Your task to perform on an android device: Open settings Image 0: 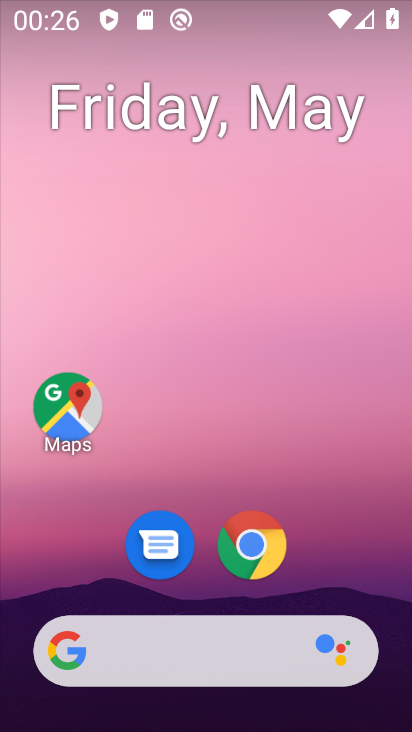
Step 0: drag from (303, 165) to (278, 12)
Your task to perform on an android device: Open settings Image 1: 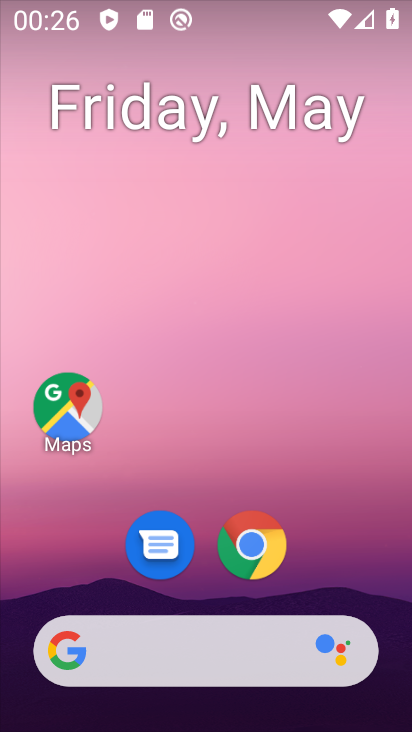
Step 1: drag from (286, 140) to (262, 0)
Your task to perform on an android device: Open settings Image 2: 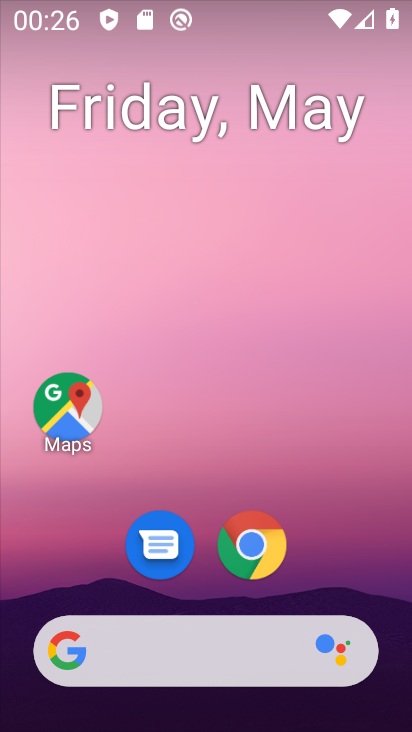
Step 2: drag from (231, 595) to (278, 25)
Your task to perform on an android device: Open settings Image 3: 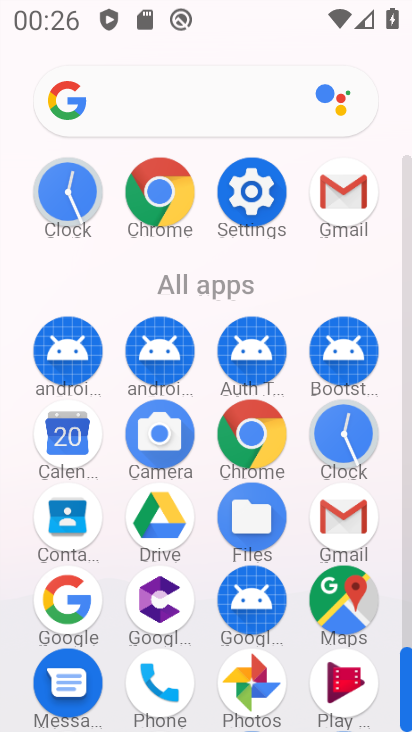
Step 3: click (241, 201)
Your task to perform on an android device: Open settings Image 4: 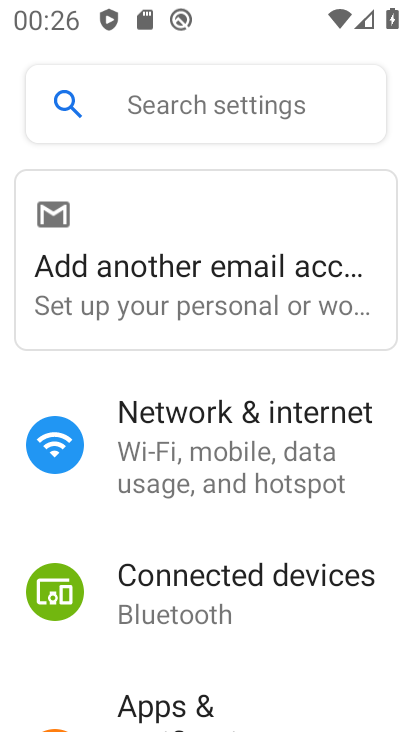
Step 4: task complete